Your task to perform on an android device: Go to Maps Image 0: 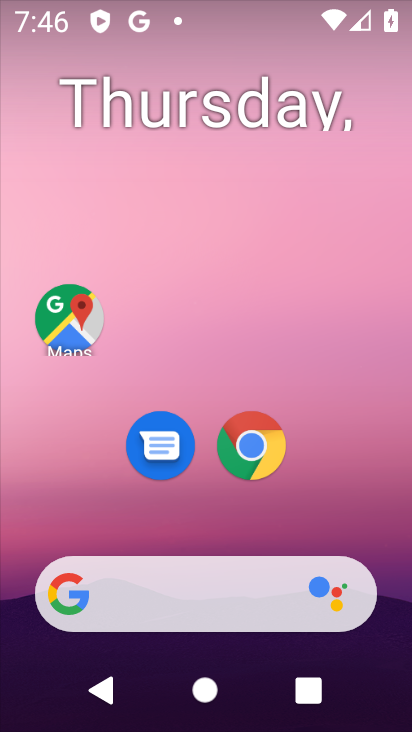
Step 0: drag from (298, 494) to (326, 145)
Your task to perform on an android device: Go to Maps Image 1: 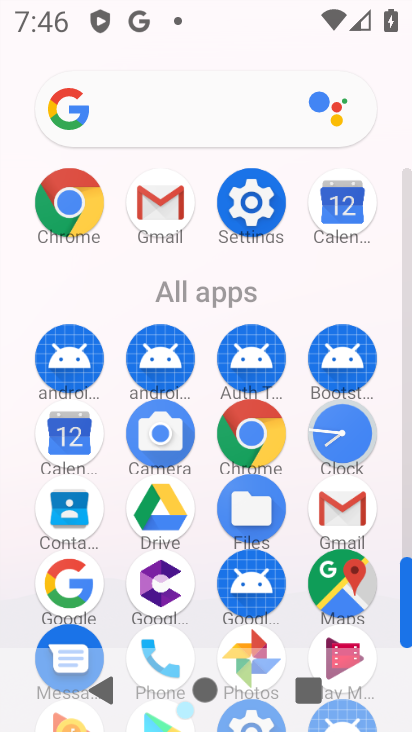
Step 1: click (344, 603)
Your task to perform on an android device: Go to Maps Image 2: 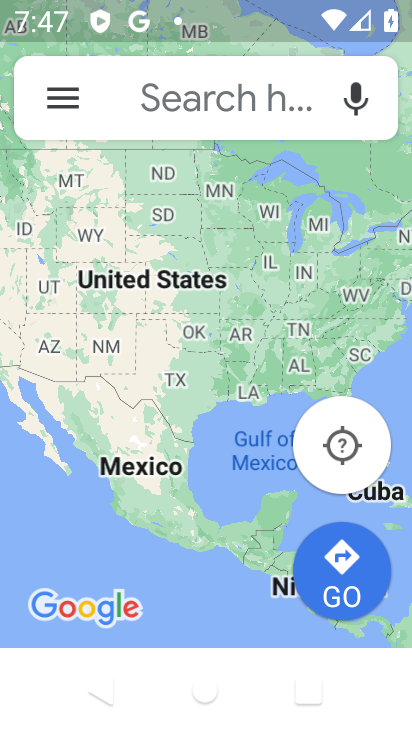
Step 2: task complete